Your task to perform on an android device: What's the news this month? Image 0: 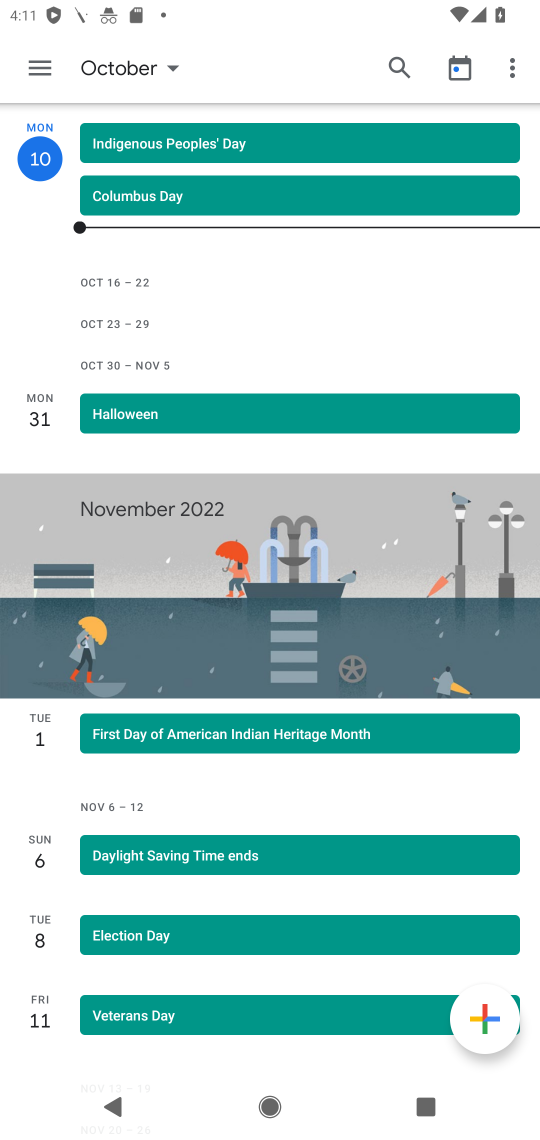
Step 0: press home button
Your task to perform on an android device: What's the news this month? Image 1: 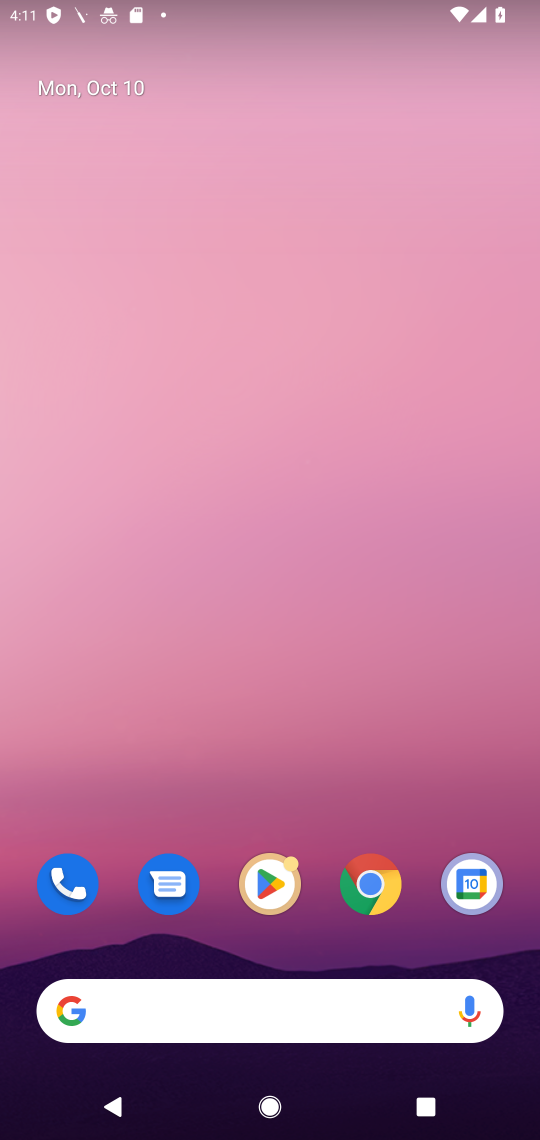
Step 1: click (255, 1010)
Your task to perform on an android device: What's the news this month? Image 2: 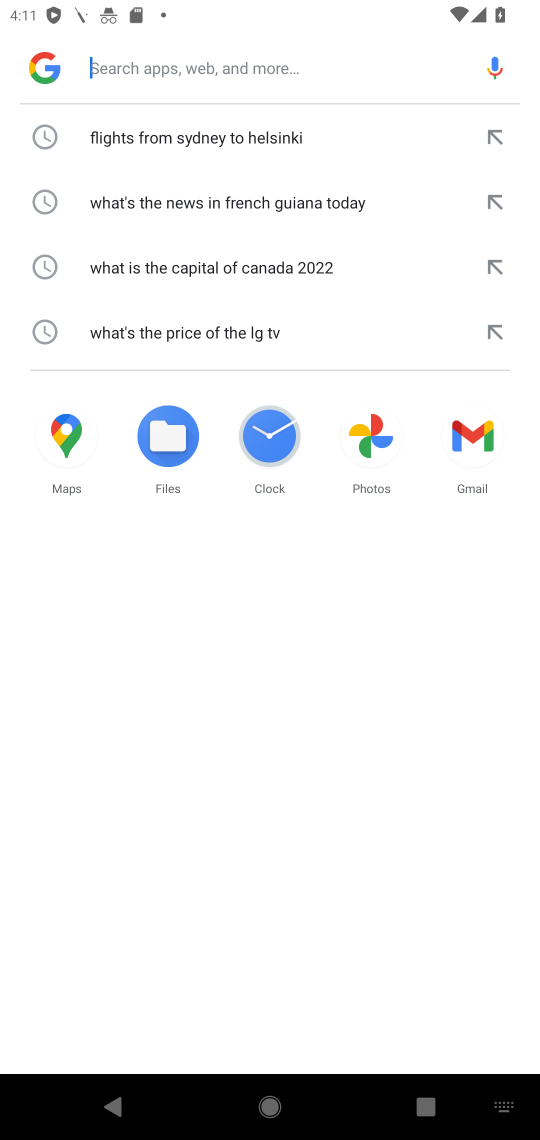
Step 2: type "What's the news this month?"
Your task to perform on an android device: What's the news this month? Image 3: 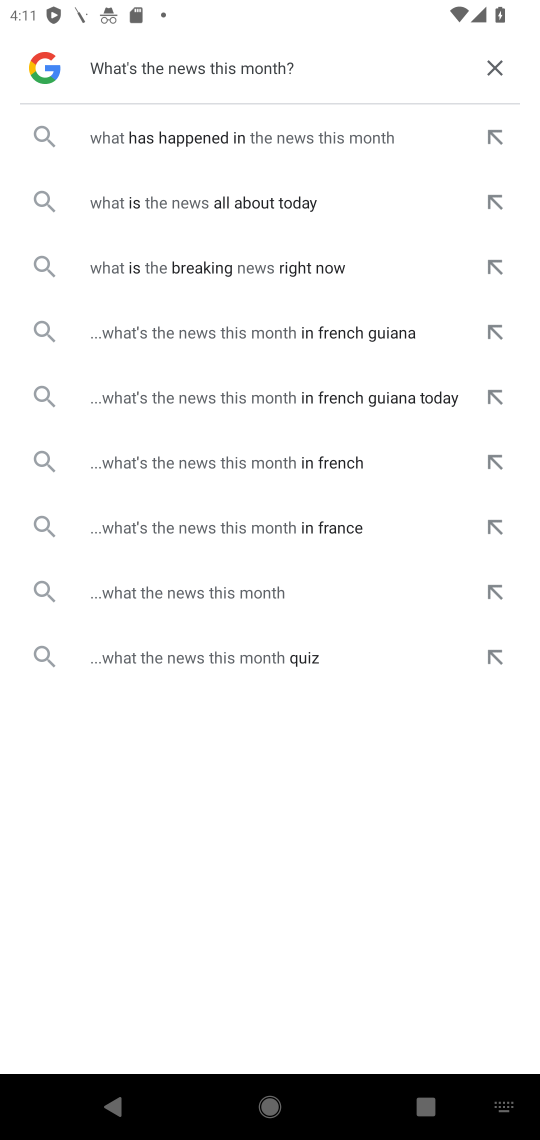
Step 3: click (181, 589)
Your task to perform on an android device: What's the news this month? Image 4: 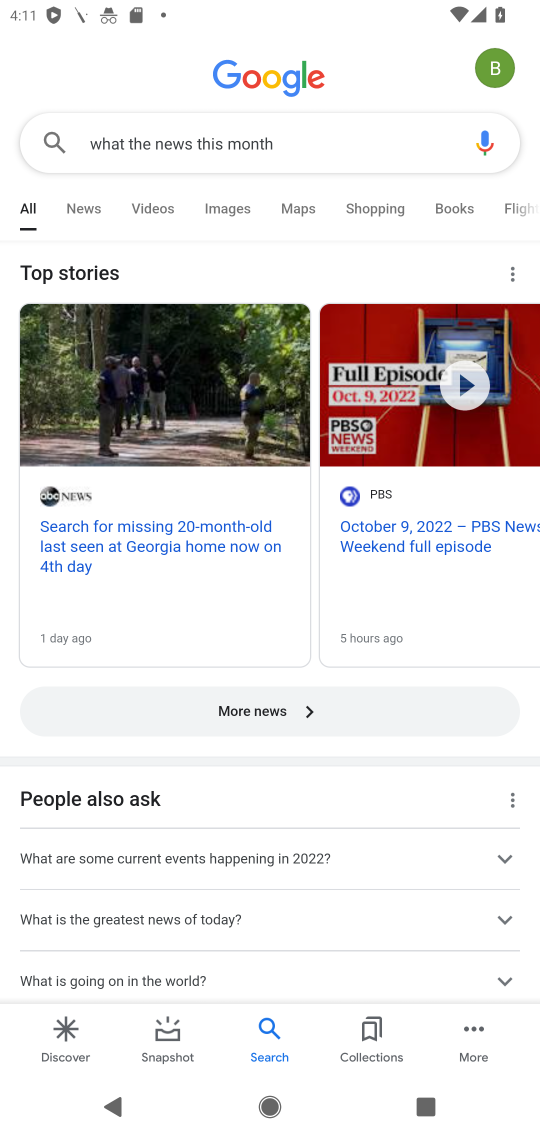
Step 4: drag from (302, 791) to (275, 448)
Your task to perform on an android device: What's the news this month? Image 5: 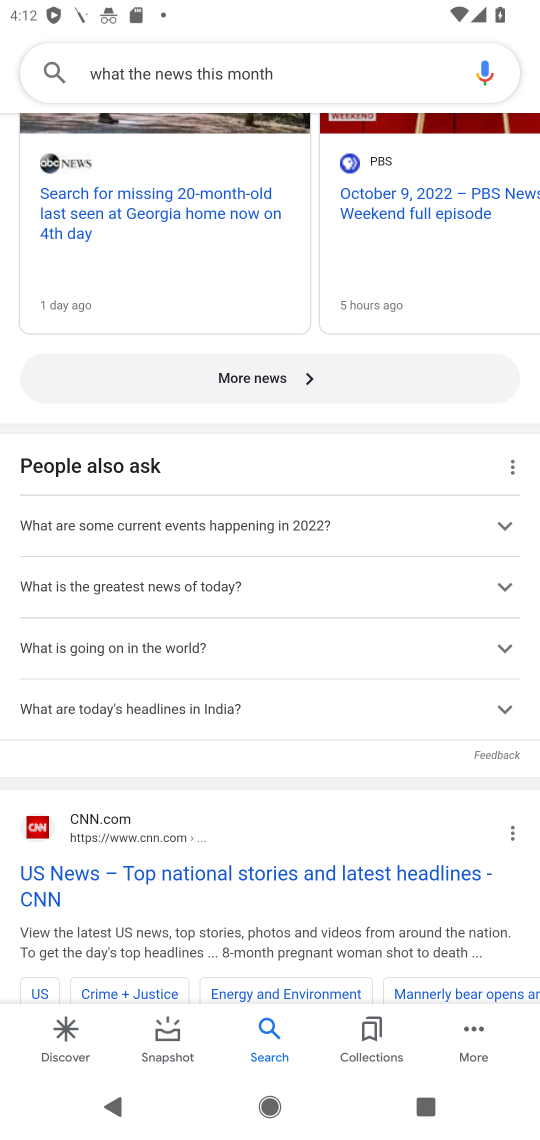
Step 5: drag from (304, 822) to (294, 629)
Your task to perform on an android device: What's the news this month? Image 6: 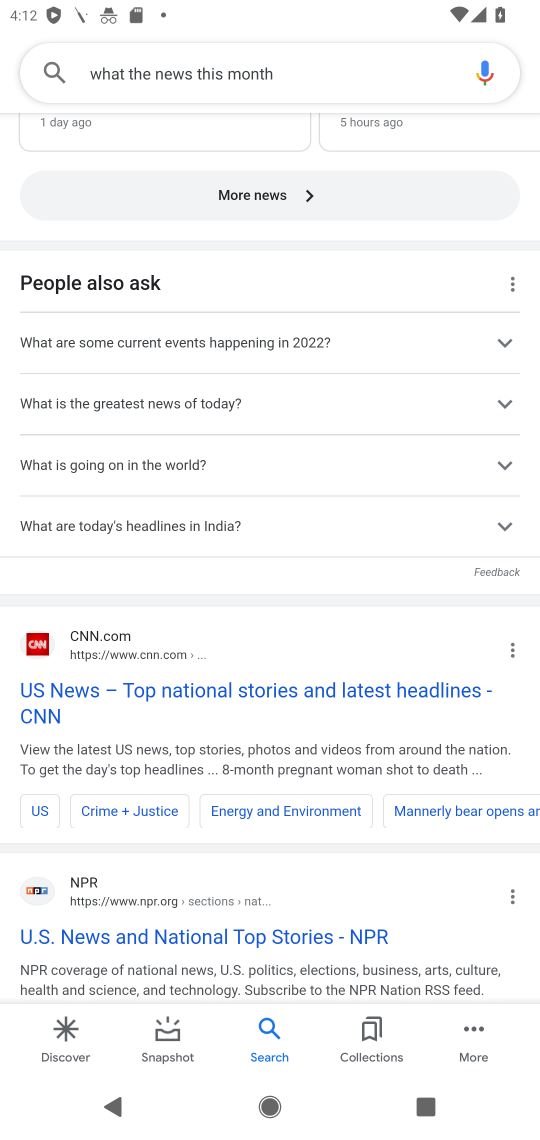
Step 6: click (223, 682)
Your task to perform on an android device: What's the news this month? Image 7: 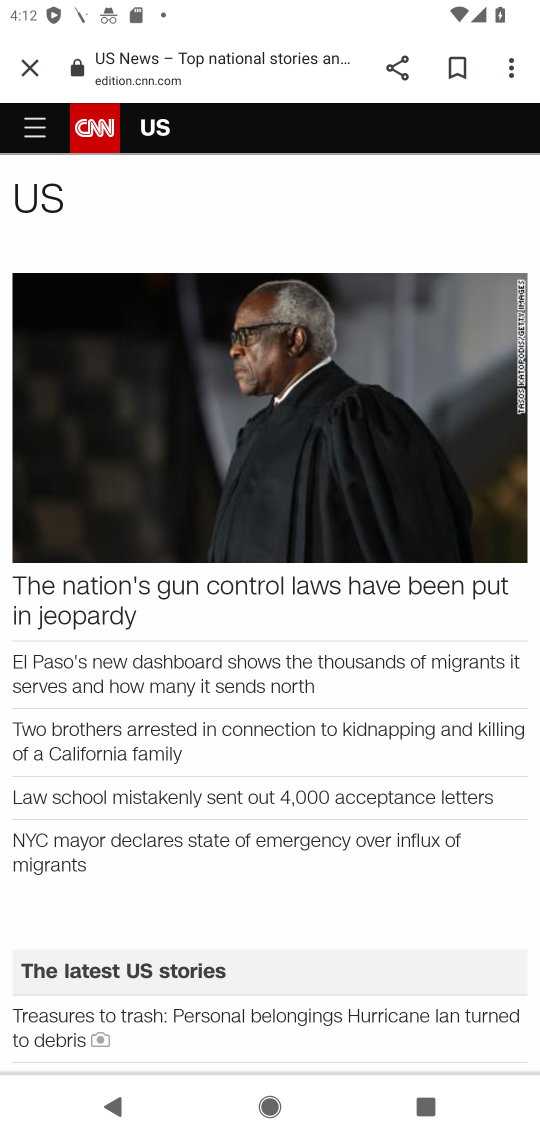
Step 7: task complete